Your task to perform on an android device: Go to internet settings Image 0: 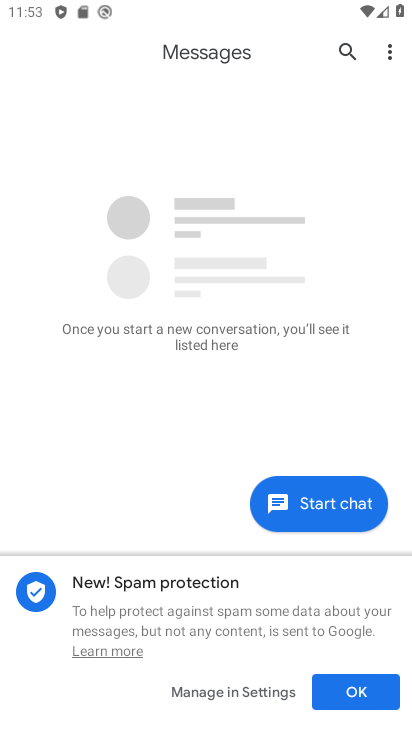
Step 0: press home button
Your task to perform on an android device: Go to internet settings Image 1: 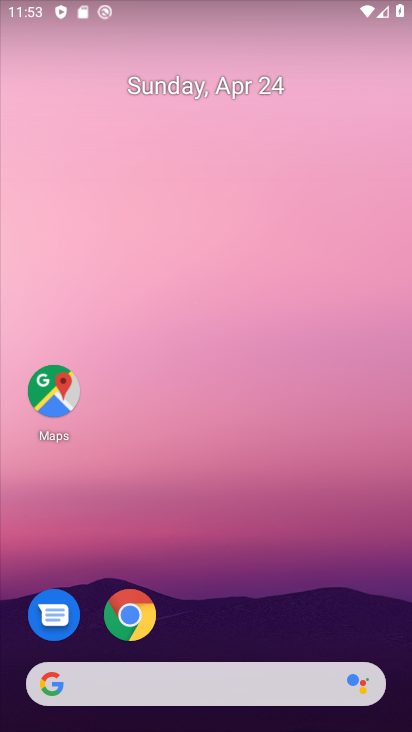
Step 1: drag from (338, 600) to (358, 127)
Your task to perform on an android device: Go to internet settings Image 2: 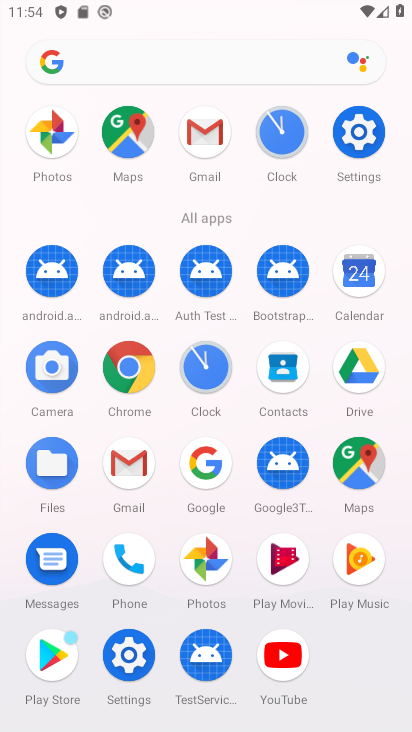
Step 2: click (369, 119)
Your task to perform on an android device: Go to internet settings Image 3: 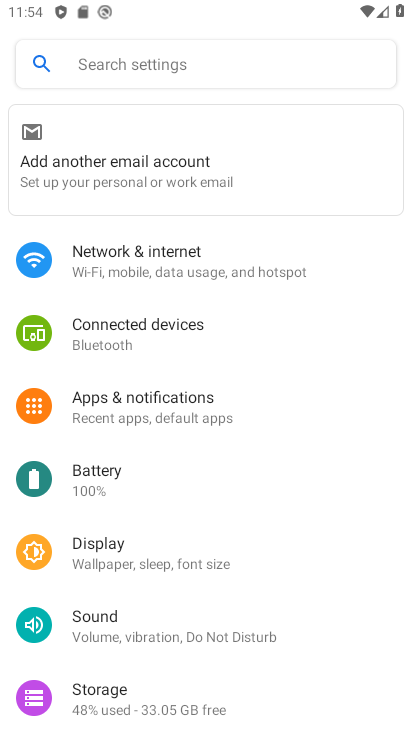
Step 3: click (182, 251)
Your task to perform on an android device: Go to internet settings Image 4: 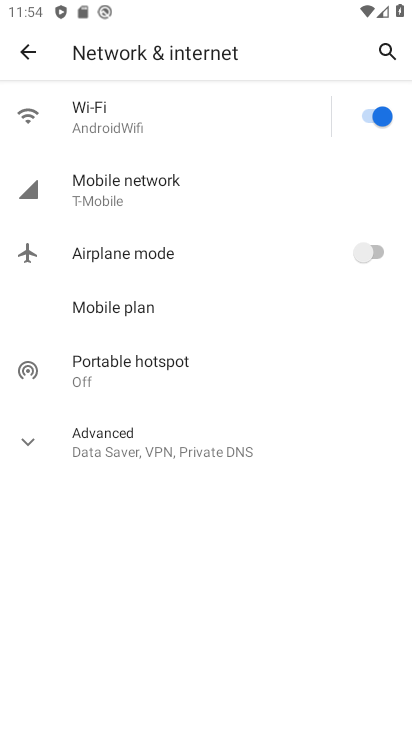
Step 4: task complete